Your task to perform on an android device: change text size in settings app Image 0: 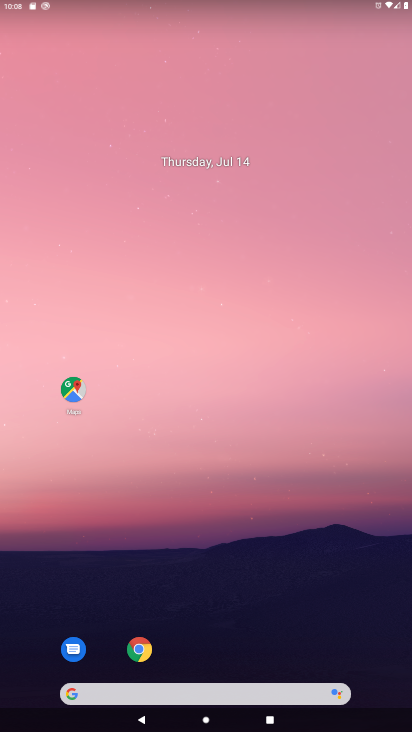
Step 0: drag from (212, 726) to (325, 70)
Your task to perform on an android device: change text size in settings app Image 1: 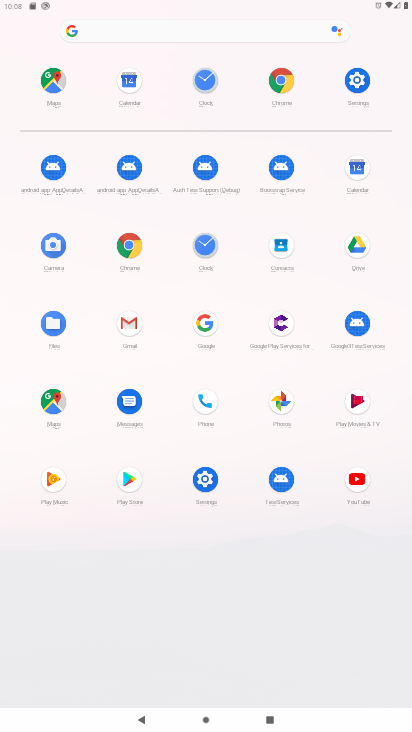
Step 1: click (370, 87)
Your task to perform on an android device: change text size in settings app Image 2: 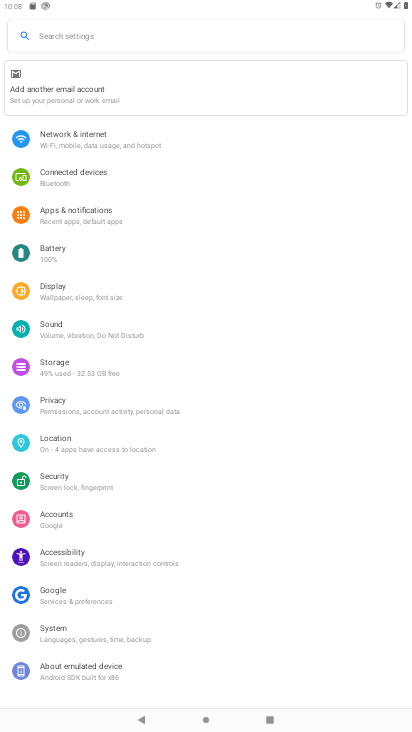
Step 2: click (108, 296)
Your task to perform on an android device: change text size in settings app Image 3: 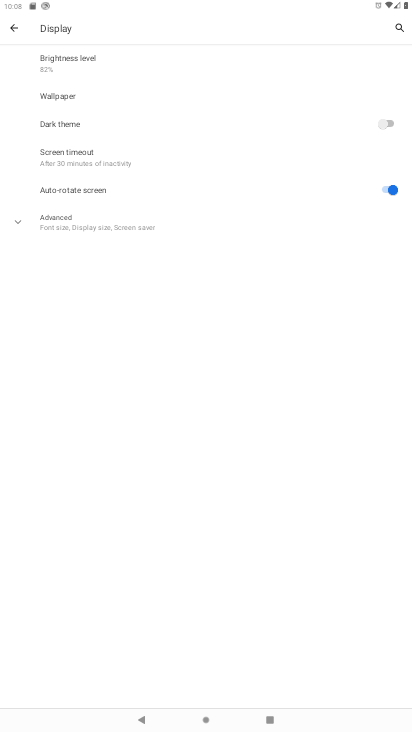
Step 3: click (84, 215)
Your task to perform on an android device: change text size in settings app Image 4: 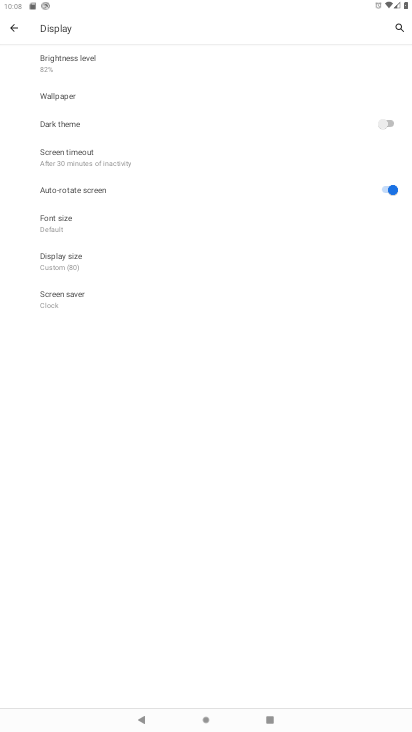
Step 4: click (78, 226)
Your task to perform on an android device: change text size in settings app Image 5: 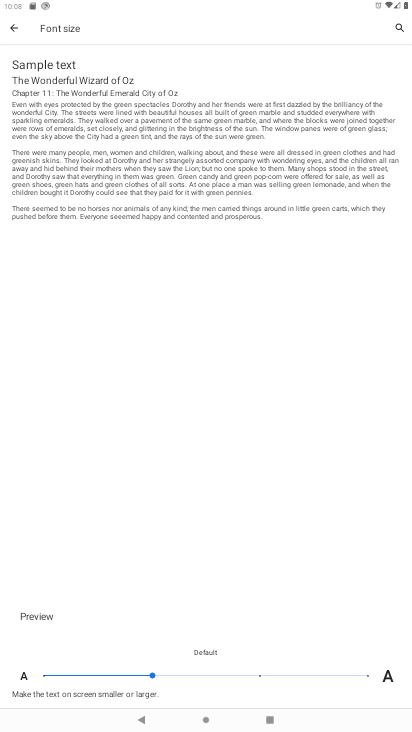
Step 5: click (264, 675)
Your task to perform on an android device: change text size in settings app Image 6: 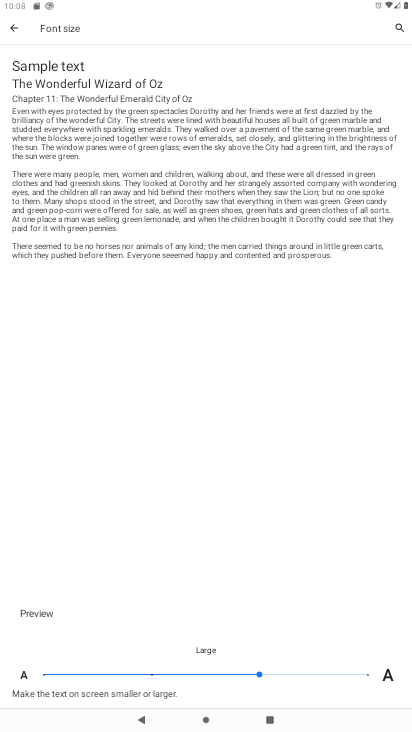
Step 6: task complete